Your task to perform on an android device: toggle notification dots Image 0: 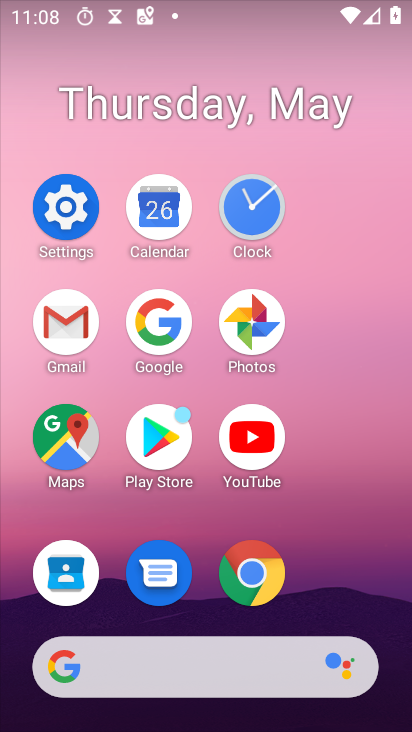
Step 0: click (55, 202)
Your task to perform on an android device: toggle notification dots Image 1: 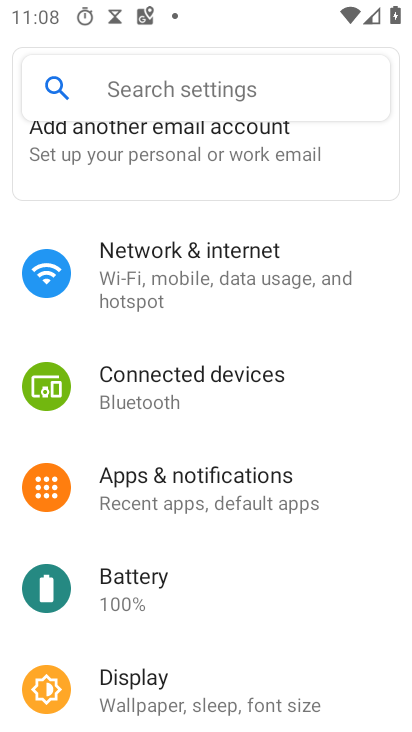
Step 1: click (182, 485)
Your task to perform on an android device: toggle notification dots Image 2: 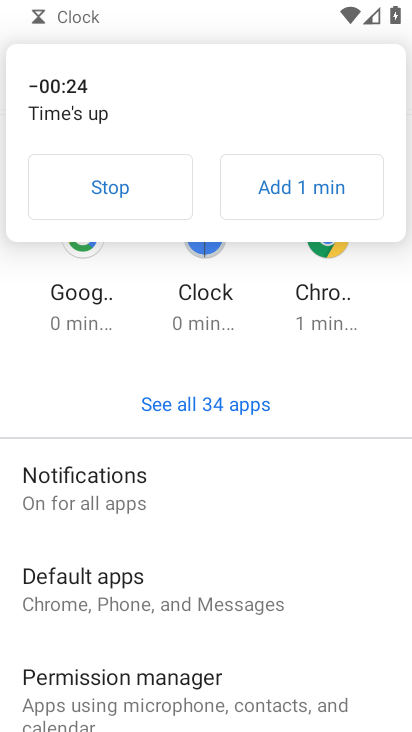
Step 2: click (122, 165)
Your task to perform on an android device: toggle notification dots Image 3: 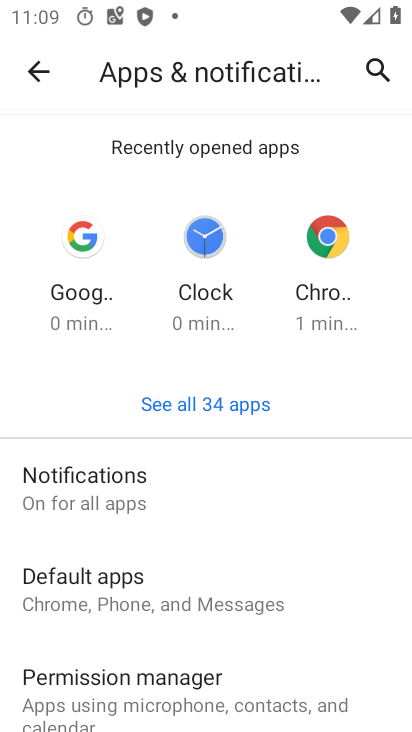
Step 3: click (172, 476)
Your task to perform on an android device: toggle notification dots Image 4: 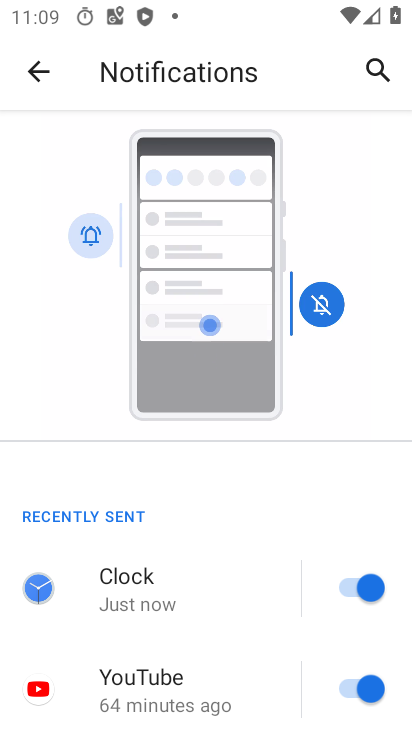
Step 4: drag from (238, 592) to (238, 256)
Your task to perform on an android device: toggle notification dots Image 5: 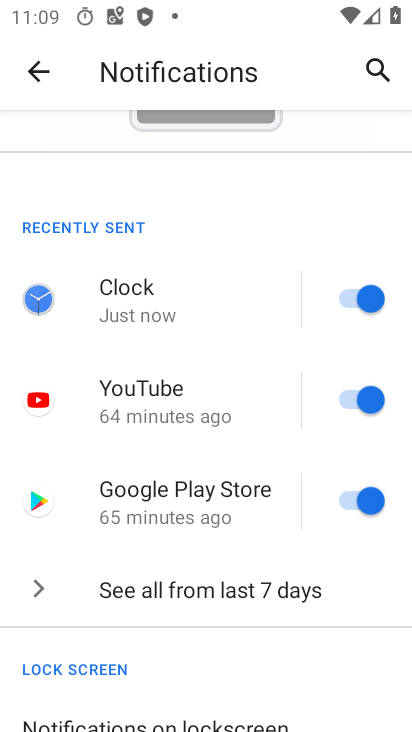
Step 5: drag from (243, 618) to (245, 316)
Your task to perform on an android device: toggle notification dots Image 6: 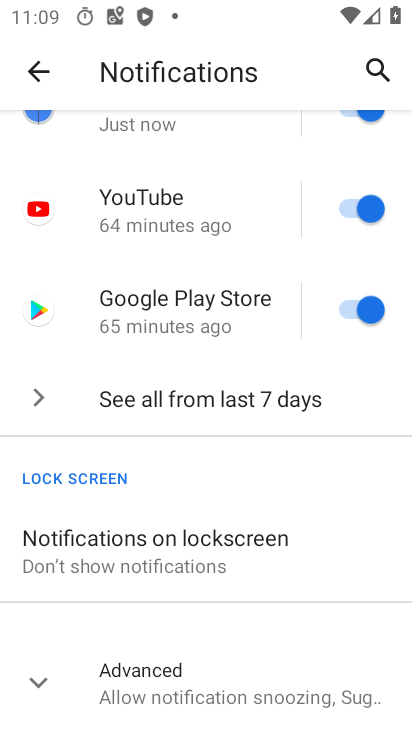
Step 6: click (224, 662)
Your task to perform on an android device: toggle notification dots Image 7: 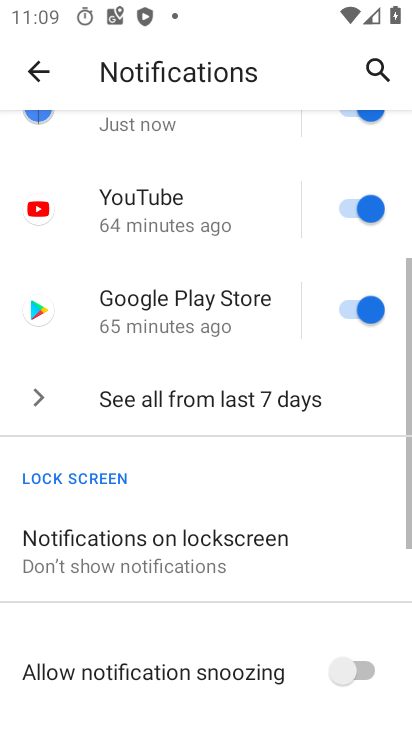
Step 7: drag from (223, 660) to (240, 307)
Your task to perform on an android device: toggle notification dots Image 8: 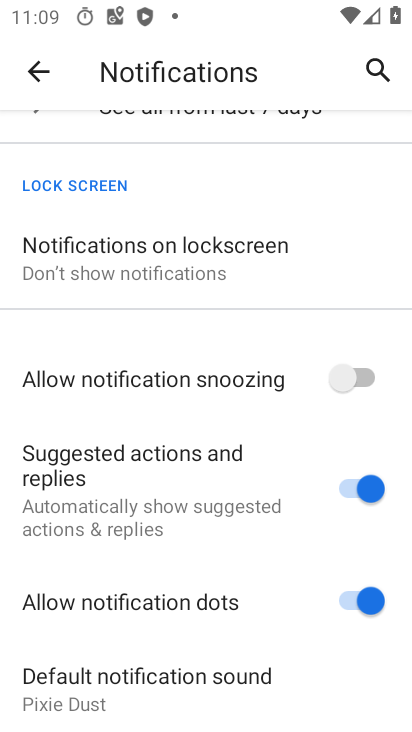
Step 8: click (371, 597)
Your task to perform on an android device: toggle notification dots Image 9: 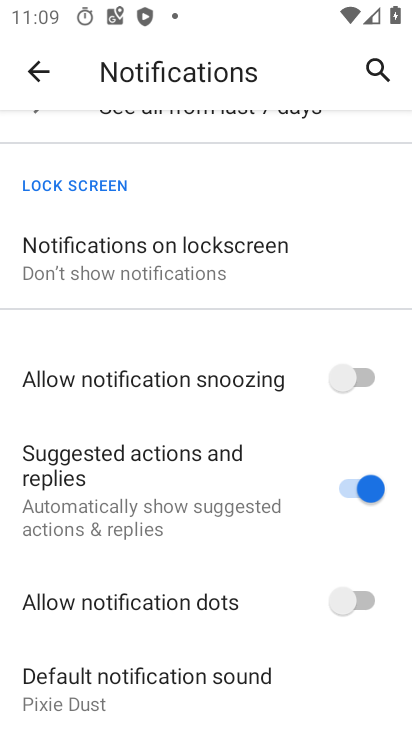
Step 9: task complete